Your task to perform on an android device: Open CNN.com Image 0: 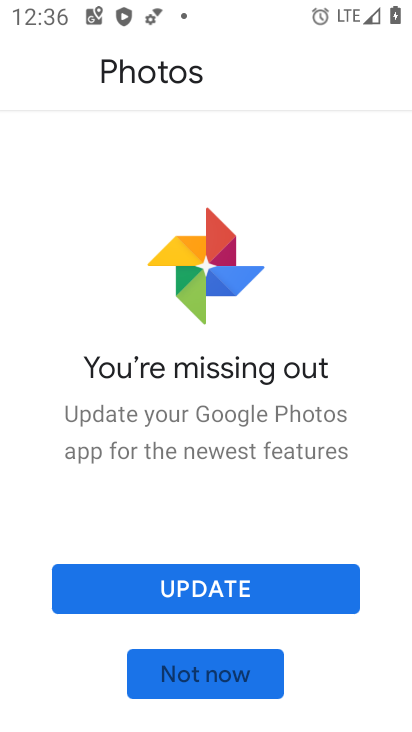
Step 0: press home button
Your task to perform on an android device: Open CNN.com Image 1: 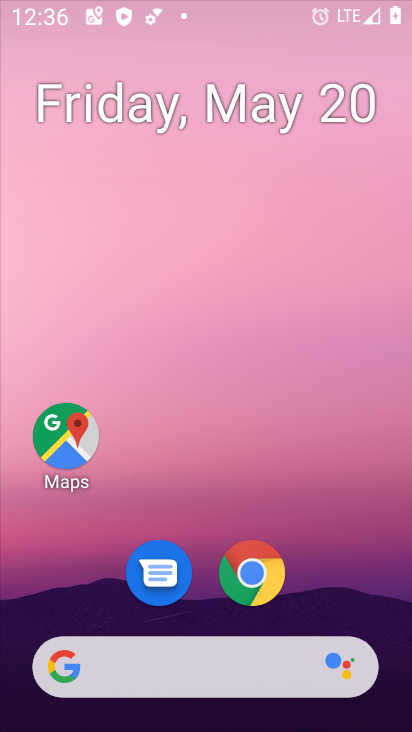
Step 1: drag from (336, 576) to (333, 73)
Your task to perform on an android device: Open CNN.com Image 2: 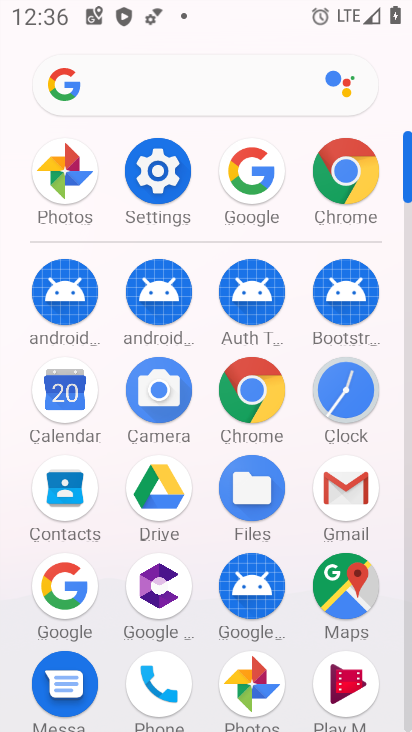
Step 2: click (66, 598)
Your task to perform on an android device: Open CNN.com Image 3: 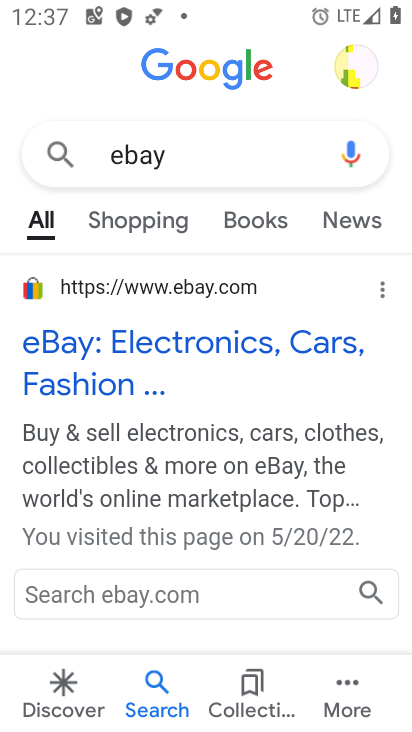
Step 3: click (205, 164)
Your task to perform on an android device: Open CNN.com Image 4: 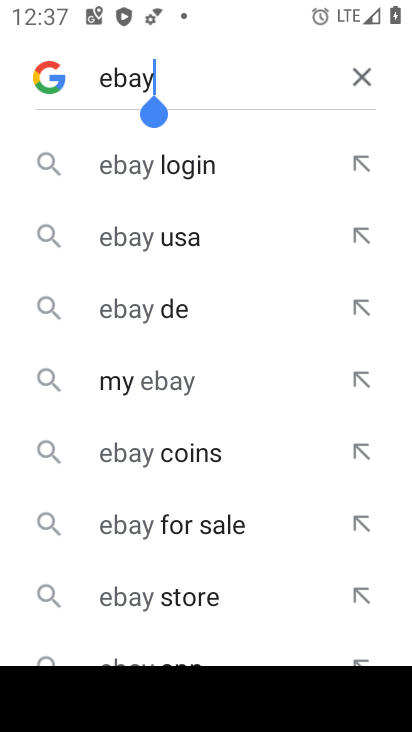
Step 4: click (361, 71)
Your task to perform on an android device: Open CNN.com Image 5: 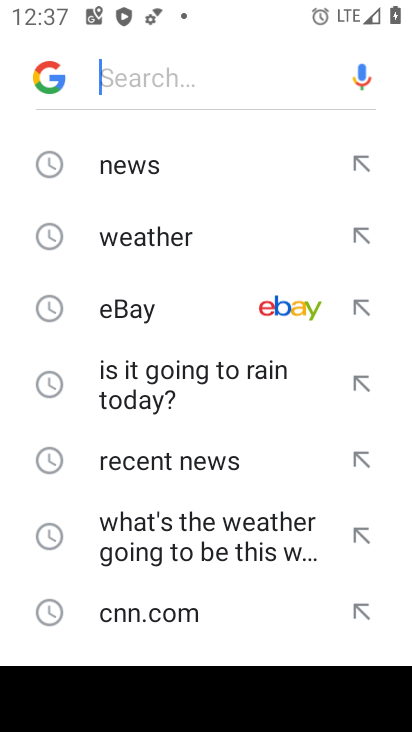
Step 5: type "cnn.com"
Your task to perform on an android device: Open CNN.com Image 6: 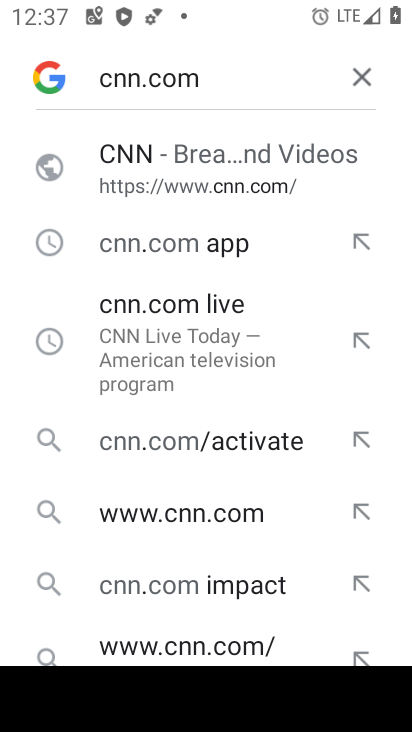
Step 6: click (199, 170)
Your task to perform on an android device: Open CNN.com Image 7: 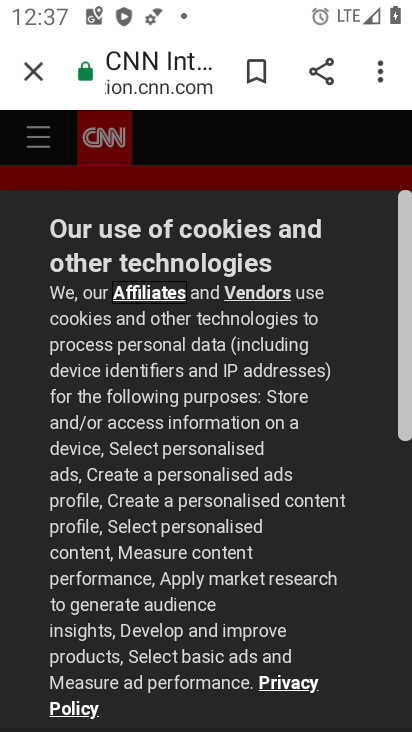
Step 7: task complete